Your task to perform on an android device: Turn on the flashlight Image 0: 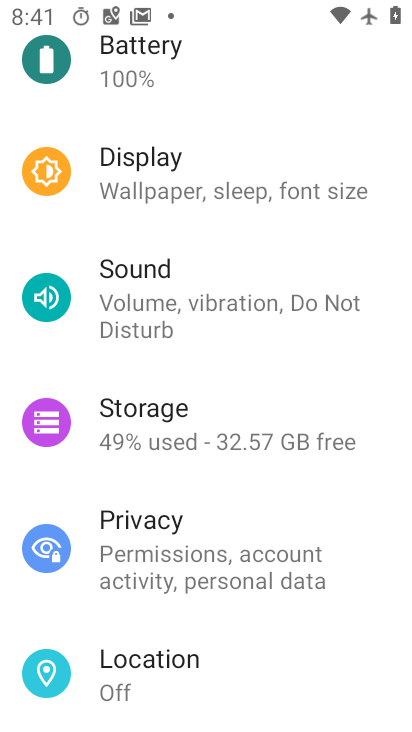
Step 0: drag from (246, 549) to (266, 198)
Your task to perform on an android device: Turn on the flashlight Image 1: 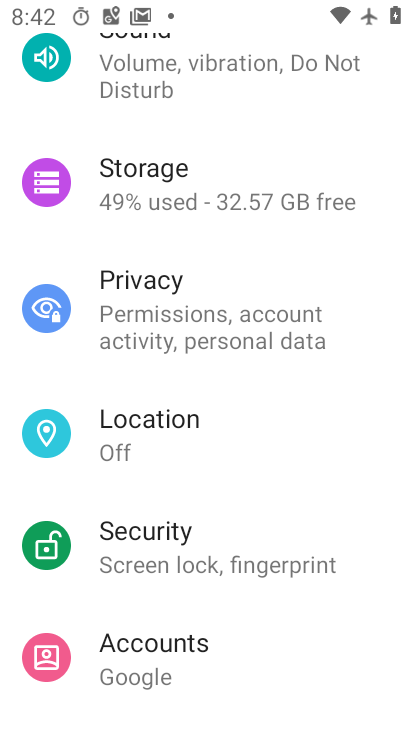
Step 1: task complete